Your task to perform on an android device: Open the map Image 0: 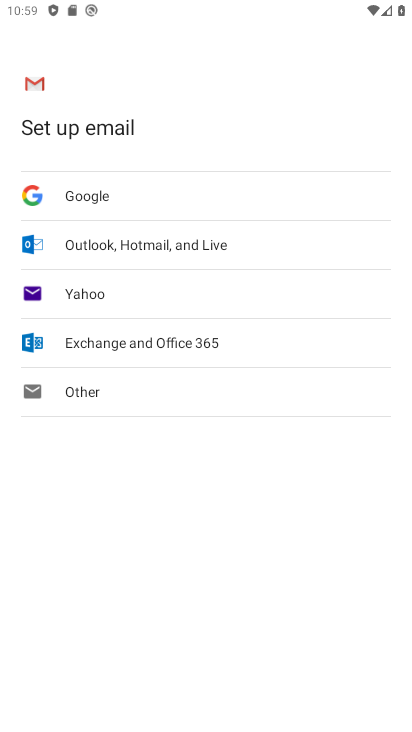
Step 0: press home button
Your task to perform on an android device: Open the map Image 1: 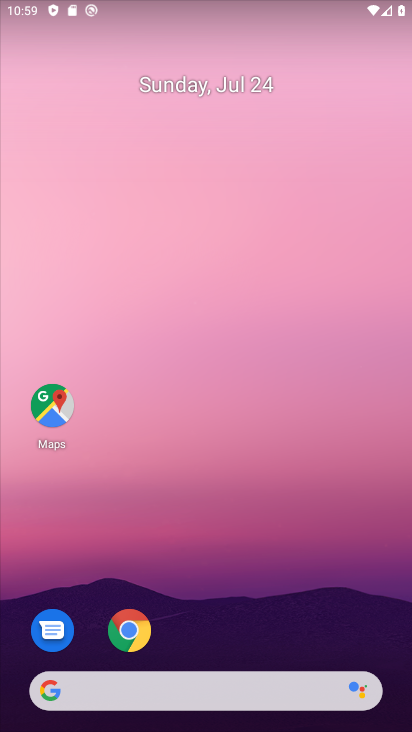
Step 1: click (45, 425)
Your task to perform on an android device: Open the map Image 2: 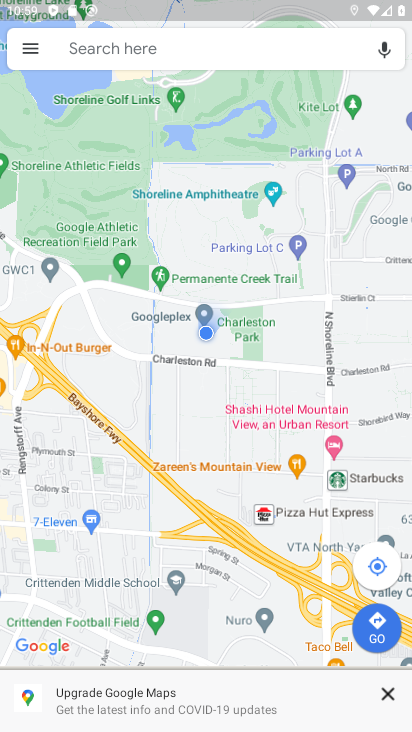
Step 2: task complete